Your task to perform on an android device: toggle translation in the chrome app Image 0: 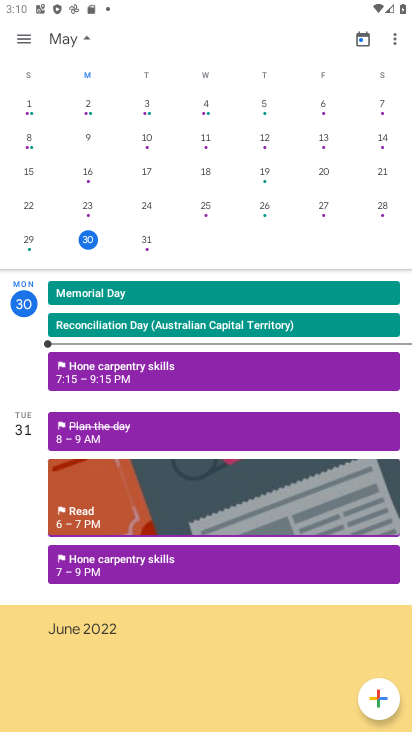
Step 0: press home button
Your task to perform on an android device: toggle translation in the chrome app Image 1: 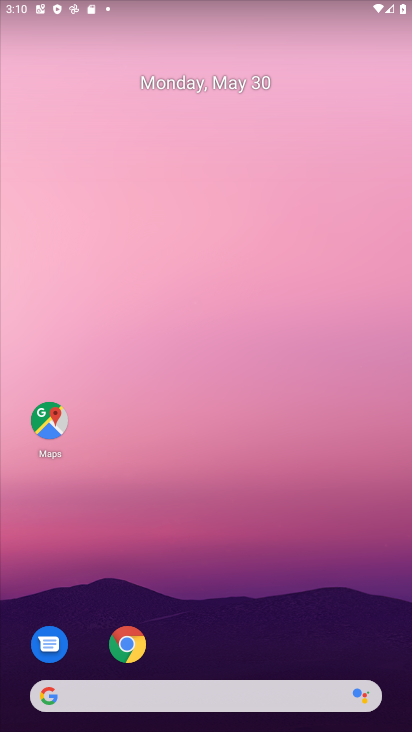
Step 1: click (128, 658)
Your task to perform on an android device: toggle translation in the chrome app Image 2: 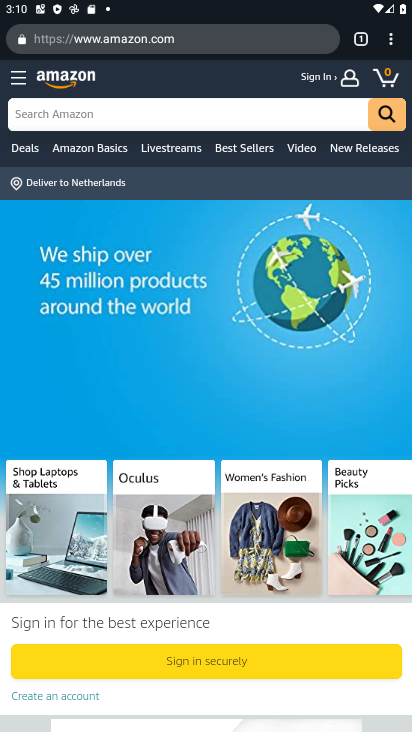
Step 2: click (397, 42)
Your task to perform on an android device: toggle translation in the chrome app Image 3: 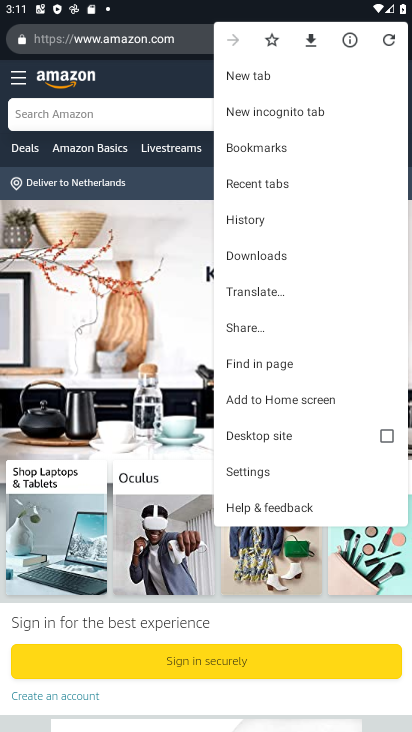
Step 3: click (282, 465)
Your task to perform on an android device: toggle translation in the chrome app Image 4: 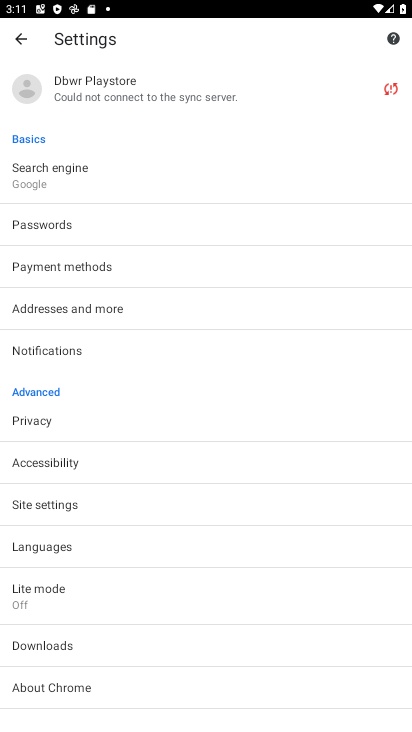
Step 4: click (195, 544)
Your task to perform on an android device: toggle translation in the chrome app Image 5: 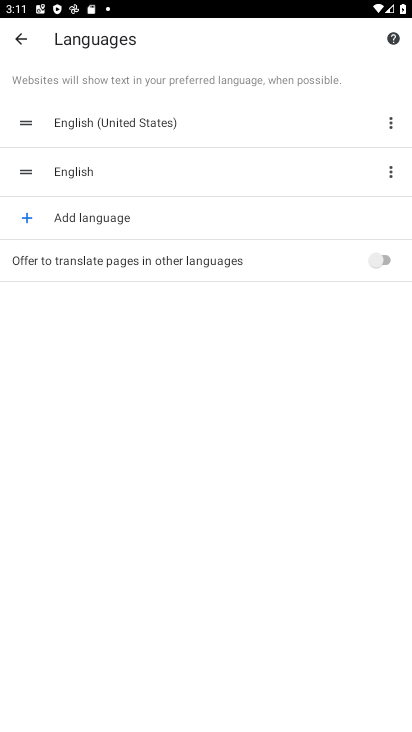
Step 5: click (370, 265)
Your task to perform on an android device: toggle translation in the chrome app Image 6: 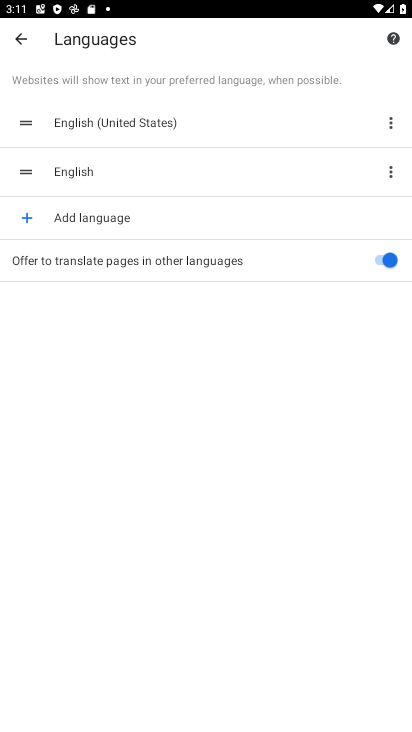
Step 6: task complete